Your task to perform on an android device: open app "Adobe Acrobat Reader: Edit PDF" (install if not already installed) Image 0: 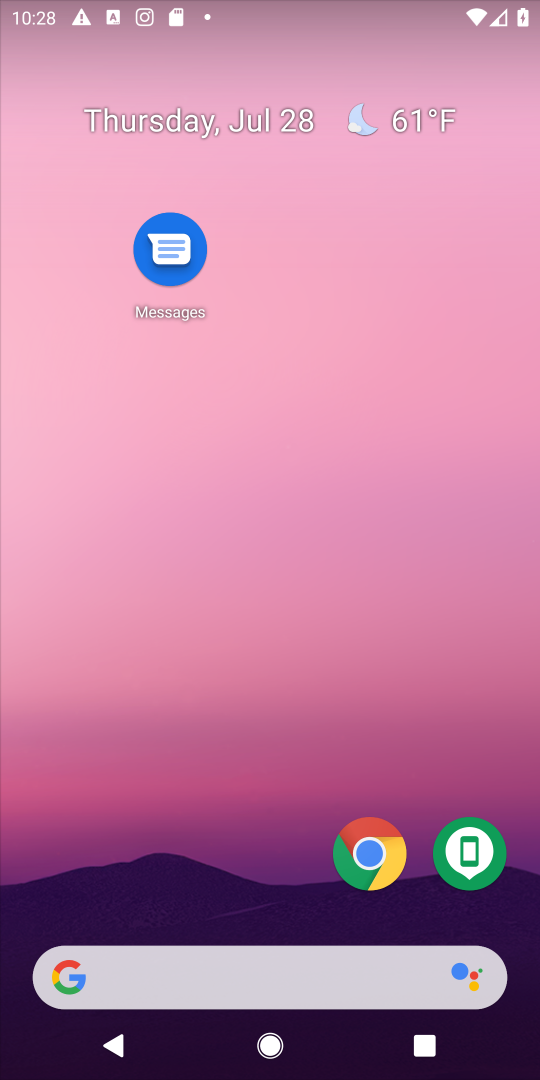
Step 0: drag from (228, 715) to (281, 188)
Your task to perform on an android device: open app "Adobe Acrobat Reader: Edit PDF" (install if not already installed) Image 1: 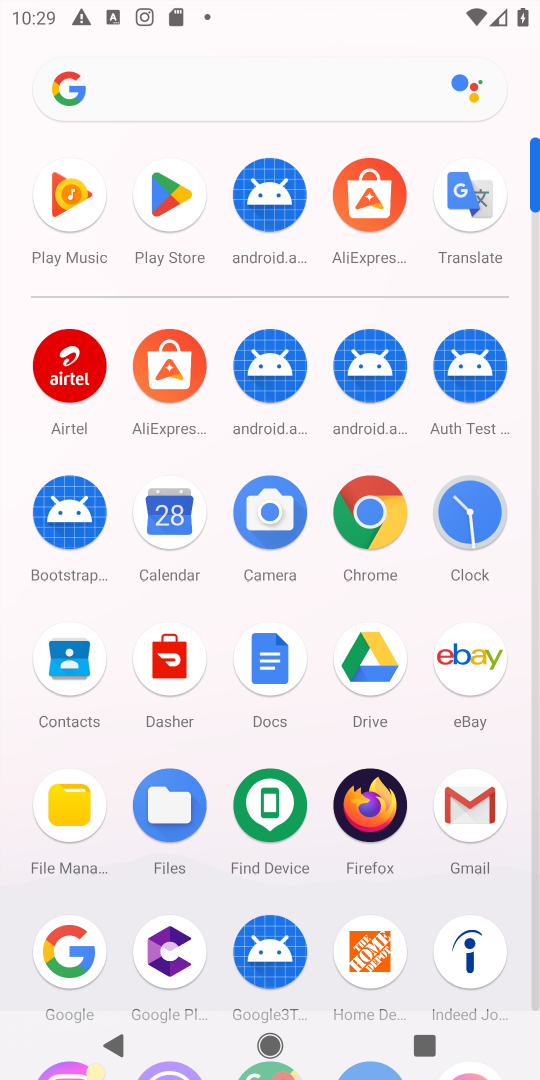
Step 1: click (180, 198)
Your task to perform on an android device: open app "Adobe Acrobat Reader: Edit PDF" (install if not already installed) Image 2: 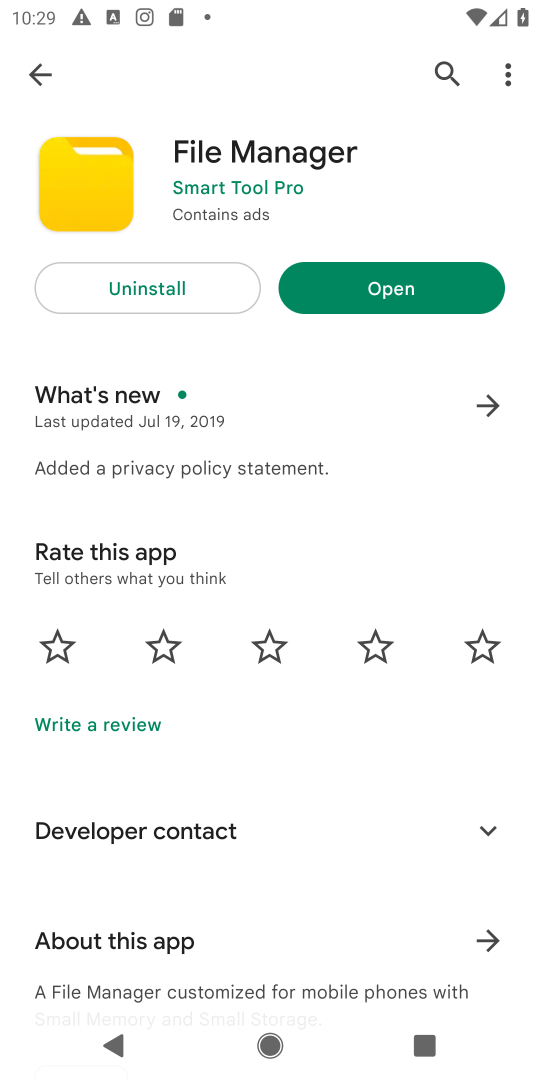
Step 2: click (36, 71)
Your task to perform on an android device: open app "Adobe Acrobat Reader: Edit PDF" (install if not already installed) Image 3: 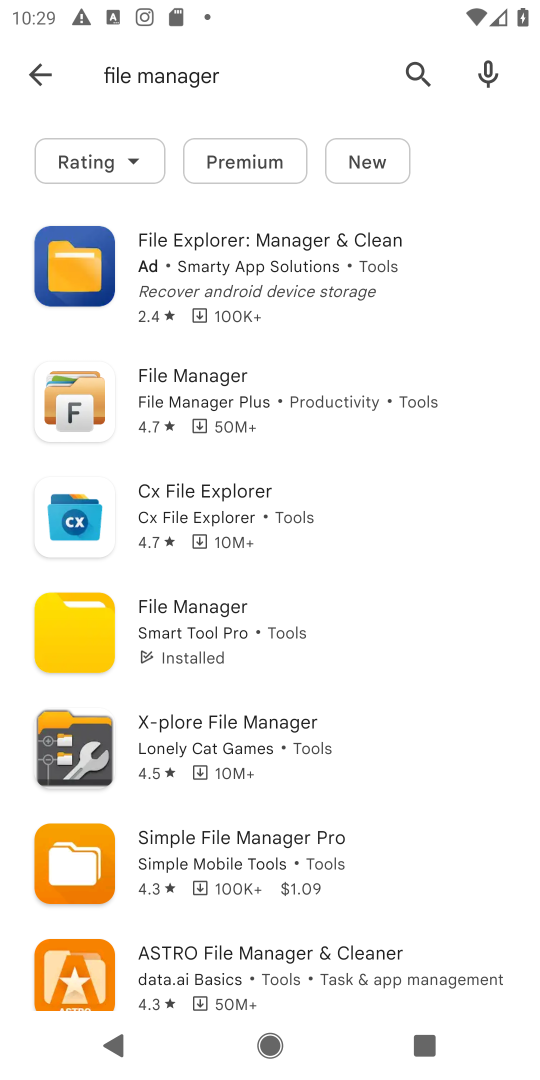
Step 3: click (36, 67)
Your task to perform on an android device: open app "Adobe Acrobat Reader: Edit PDF" (install if not already installed) Image 4: 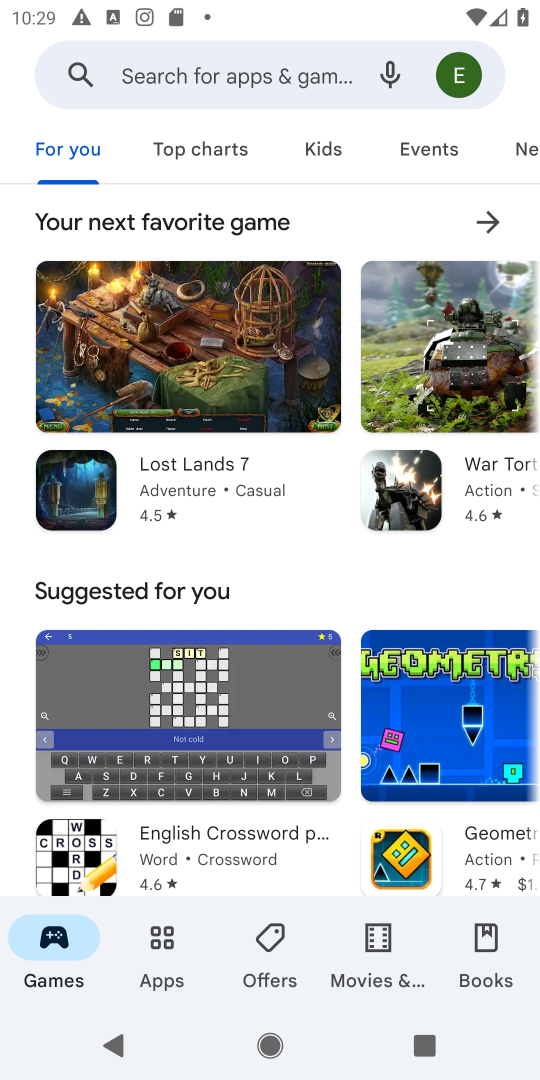
Step 4: click (215, 79)
Your task to perform on an android device: open app "Adobe Acrobat Reader: Edit PDF" (install if not already installed) Image 5: 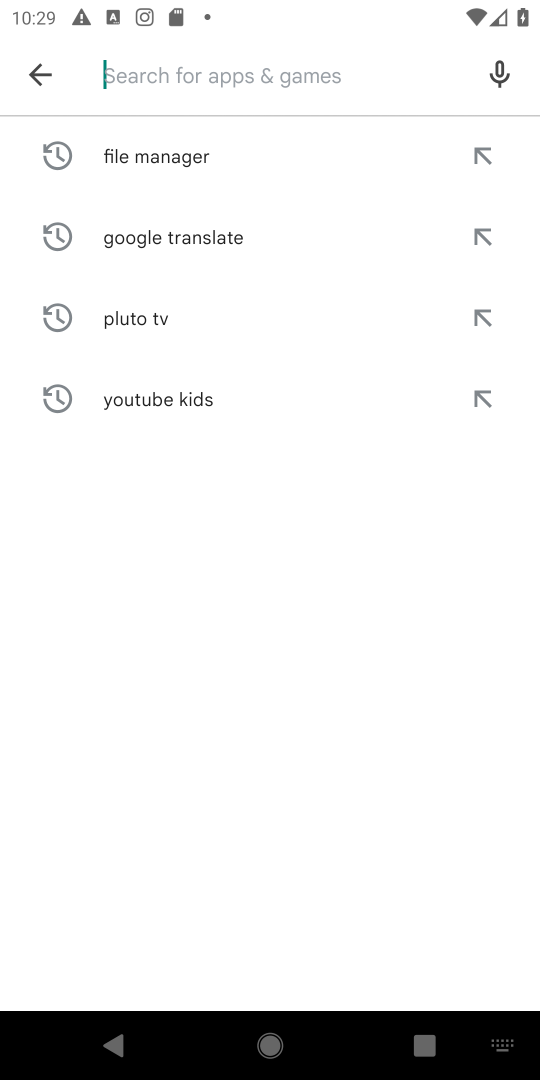
Step 5: type "Adobe Acrobat Reader: Edit PDF"
Your task to perform on an android device: open app "Adobe Acrobat Reader: Edit PDF" (install if not already installed) Image 6: 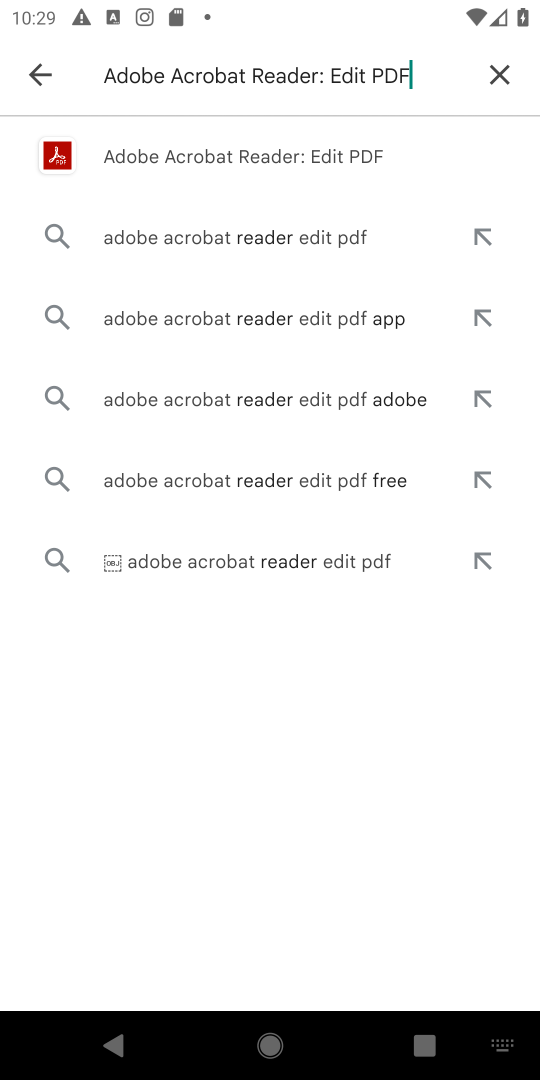
Step 6: click (208, 154)
Your task to perform on an android device: open app "Adobe Acrobat Reader: Edit PDF" (install if not already installed) Image 7: 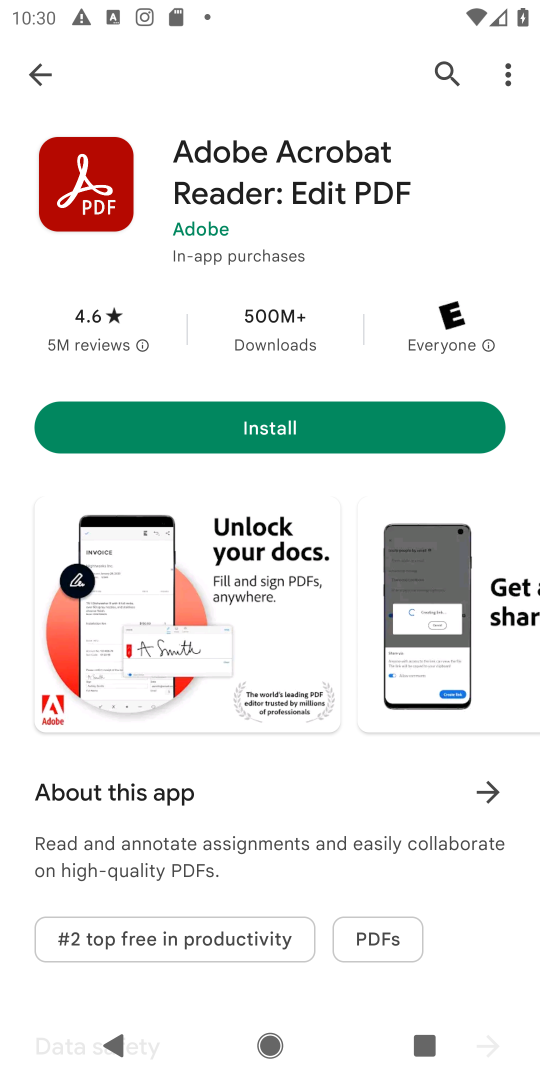
Step 7: click (329, 412)
Your task to perform on an android device: open app "Adobe Acrobat Reader: Edit PDF" (install if not already installed) Image 8: 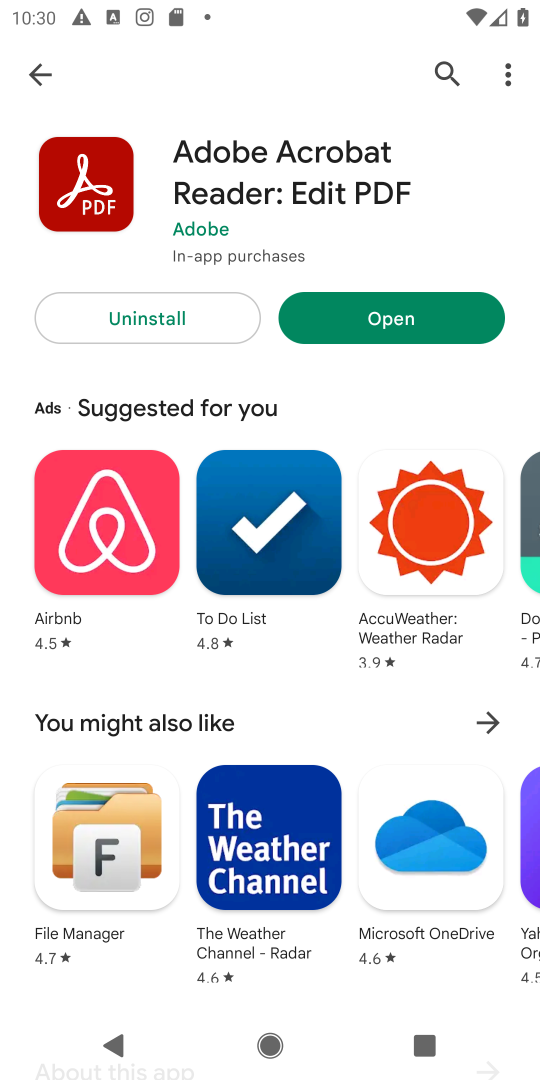
Step 8: click (380, 305)
Your task to perform on an android device: open app "Adobe Acrobat Reader: Edit PDF" (install if not already installed) Image 9: 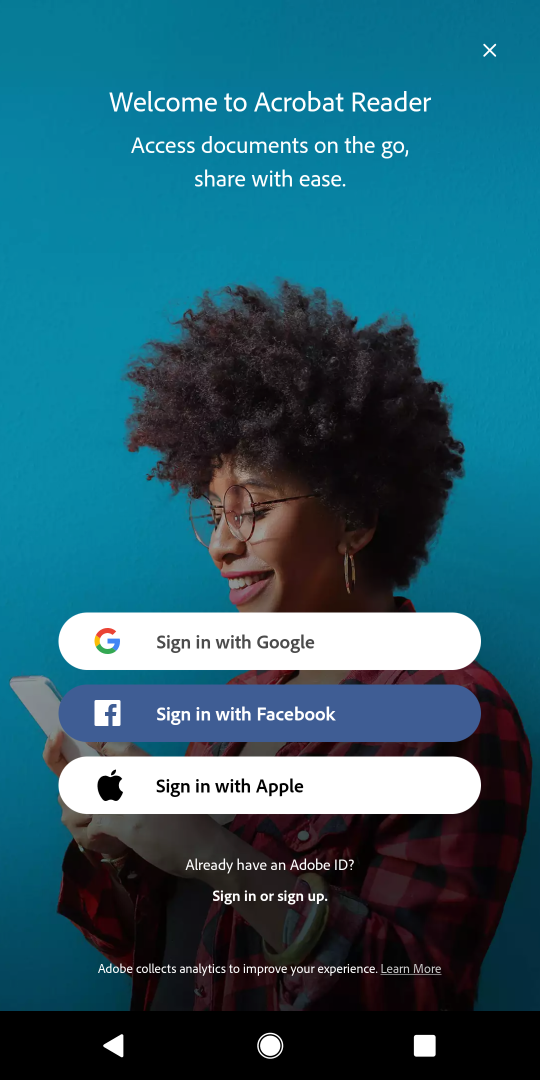
Step 9: task complete